Your task to perform on an android device: turn off sleep mode Image 0: 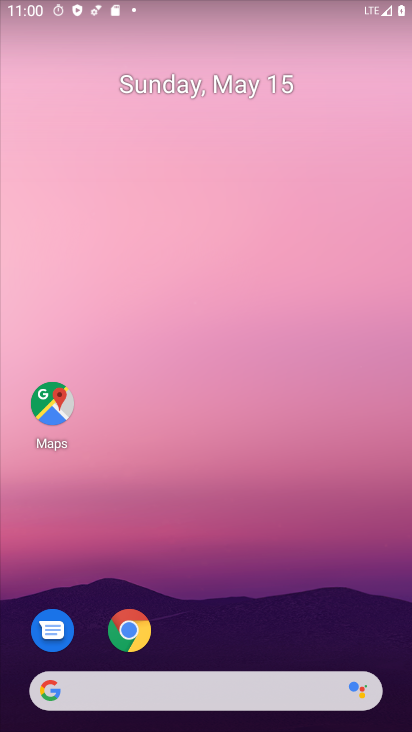
Step 0: drag from (231, 558) to (276, 128)
Your task to perform on an android device: turn off sleep mode Image 1: 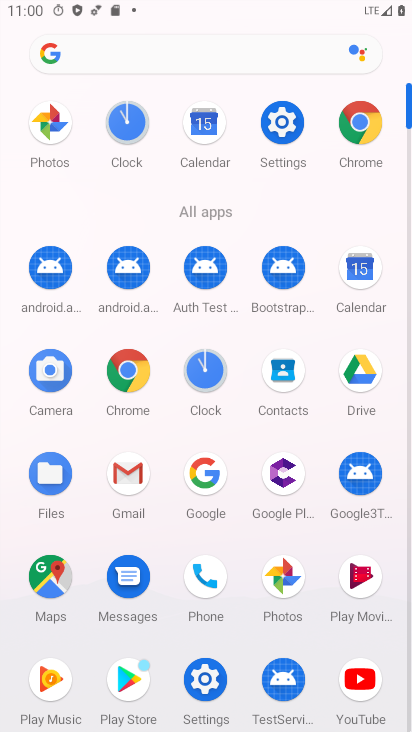
Step 1: click (274, 127)
Your task to perform on an android device: turn off sleep mode Image 2: 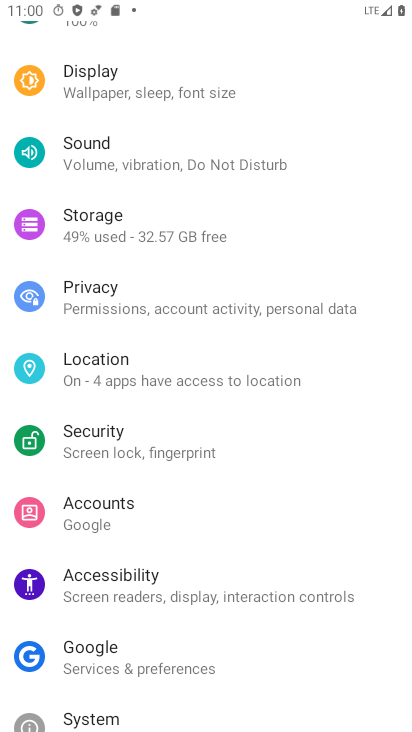
Step 2: drag from (186, 153) to (192, 647)
Your task to perform on an android device: turn off sleep mode Image 3: 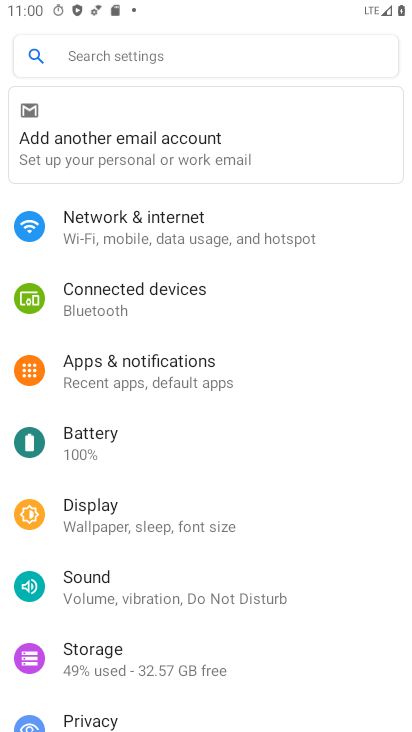
Step 3: click (116, 50)
Your task to perform on an android device: turn off sleep mode Image 4: 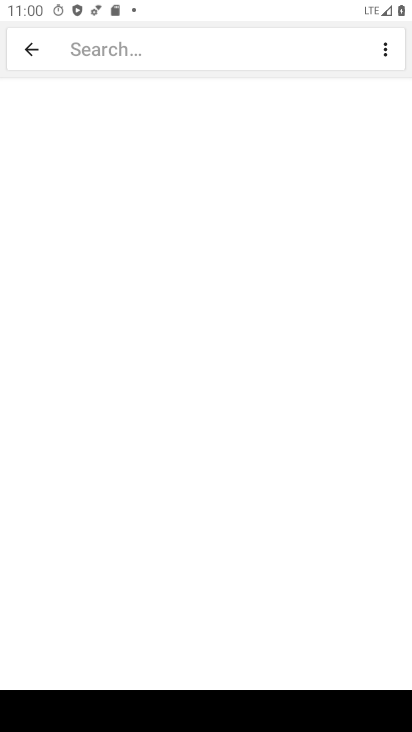
Step 4: type "sleep mode"
Your task to perform on an android device: turn off sleep mode Image 5: 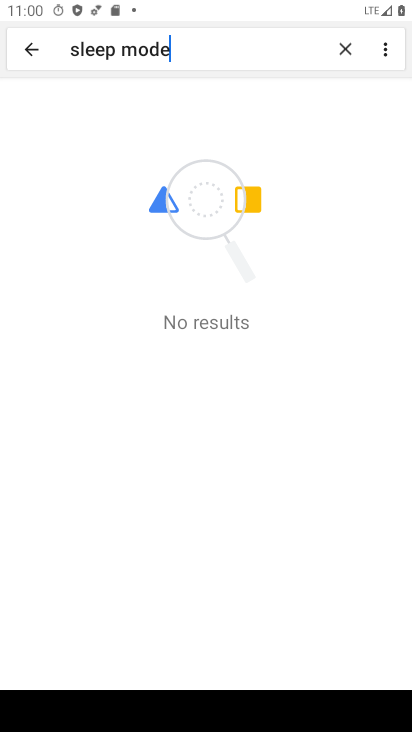
Step 5: task complete